Your task to perform on an android device: toggle airplane mode Image 0: 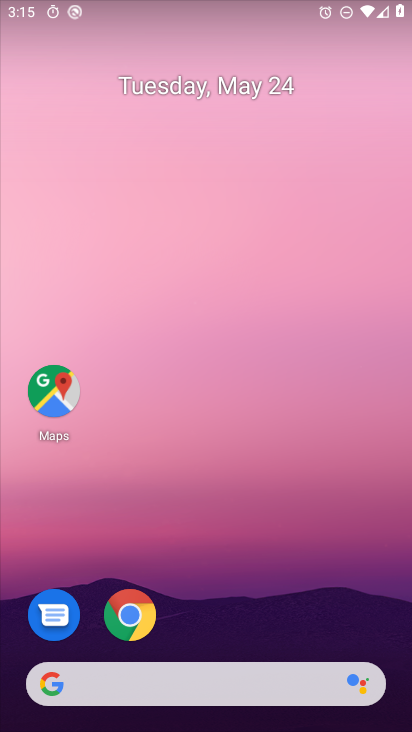
Step 0: press home button
Your task to perform on an android device: toggle airplane mode Image 1: 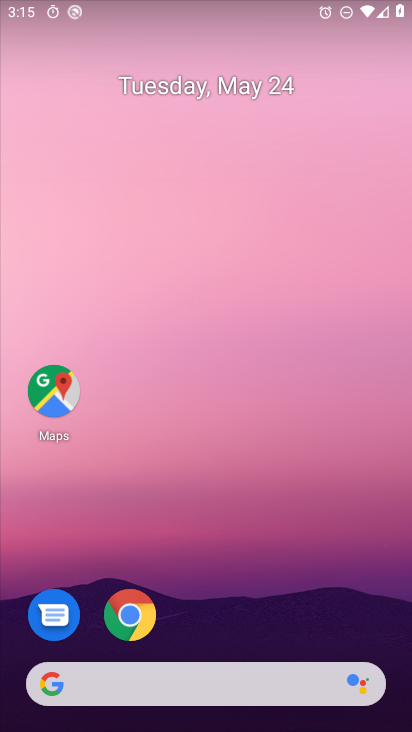
Step 1: drag from (167, 636) to (180, 195)
Your task to perform on an android device: toggle airplane mode Image 2: 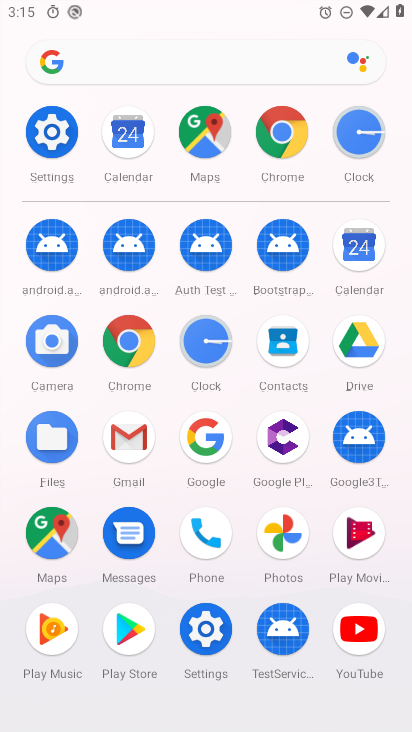
Step 2: click (66, 131)
Your task to perform on an android device: toggle airplane mode Image 3: 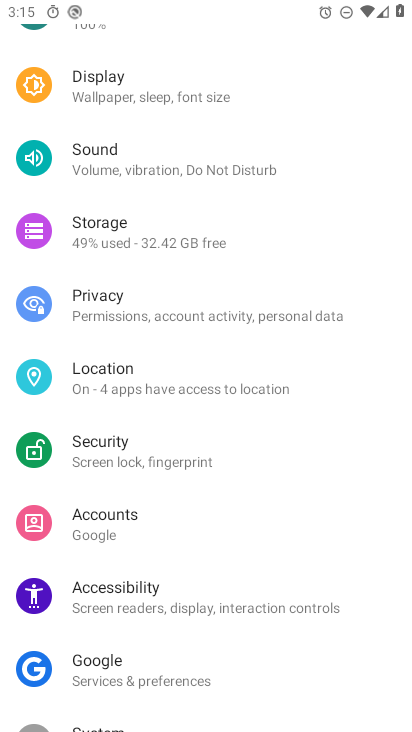
Step 3: drag from (282, 77) to (301, 563)
Your task to perform on an android device: toggle airplane mode Image 4: 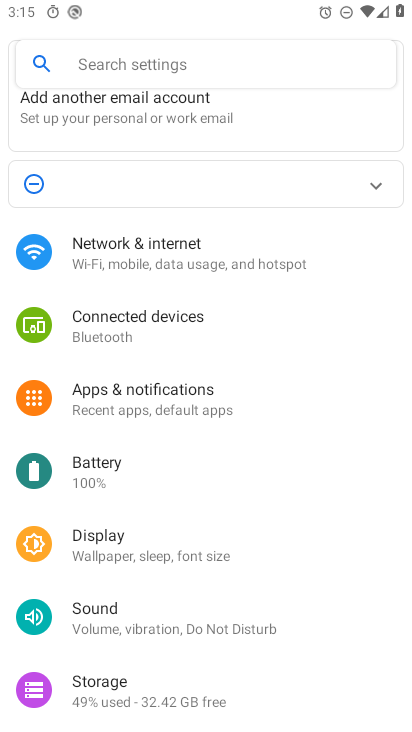
Step 4: click (169, 259)
Your task to perform on an android device: toggle airplane mode Image 5: 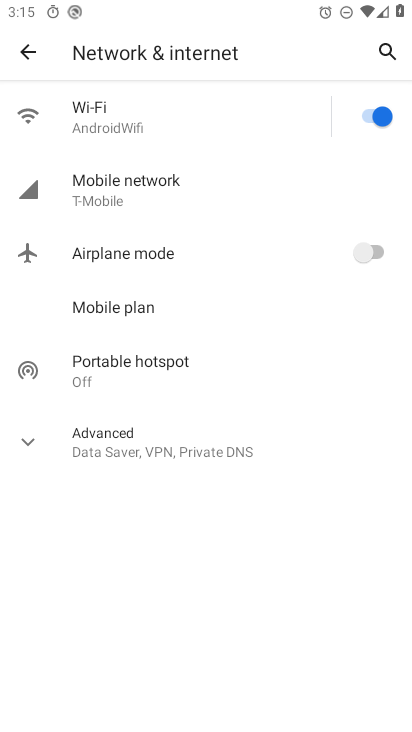
Step 5: click (370, 249)
Your task to perform on an android device: toggle airplane mode Image 6: 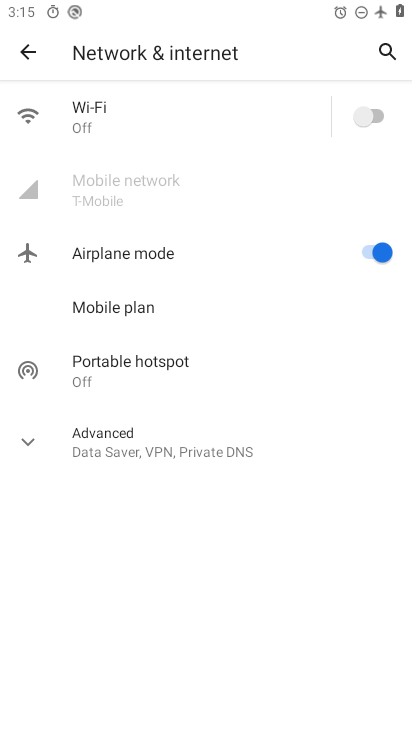
Step 6: task complete